Your task to perform on an android device: Show me productivity apps on the Play Store Image 0: 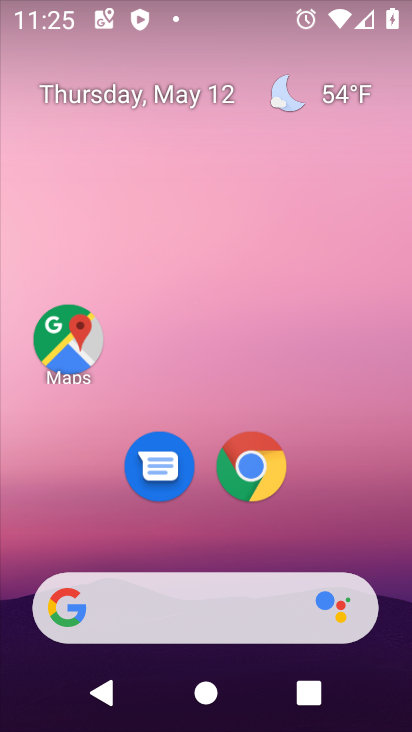
Step 0: drag from (339, 493) to (372, 209)
Your task to perform on an android device: Show me productivity apps on the Play Store Image 1: 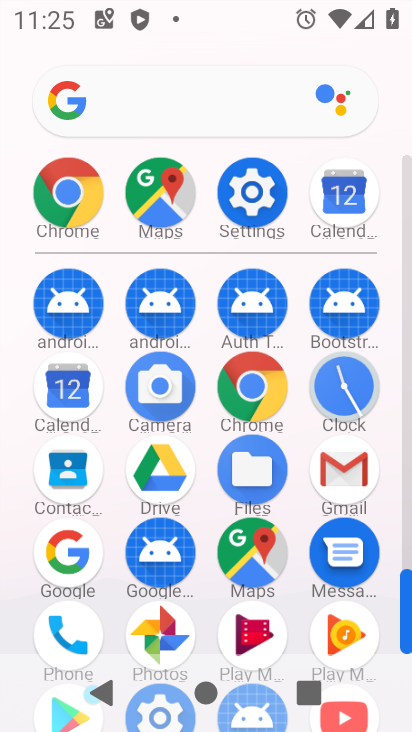
Step 1: drag from (199, 611) to (208, 249)
Your task to perform on an android device: Show me productivity apps on the Play Store Image 2: 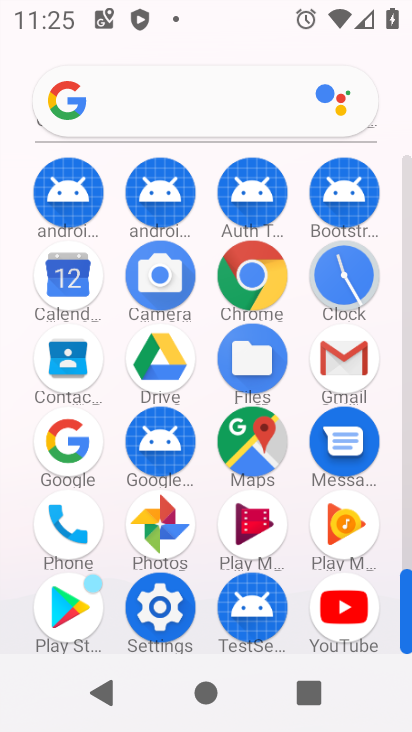
Step 2: click (72, 611)
Your task to perform on an android device: Show me productivity apps on the Play Store Image 3: 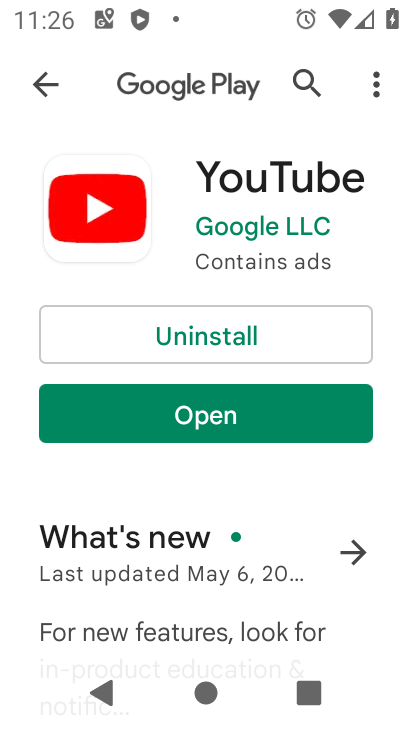
Step 3: click (39, 88)
Your task to perform on an android device: Show me productivity apps on the Play Store Image 4: 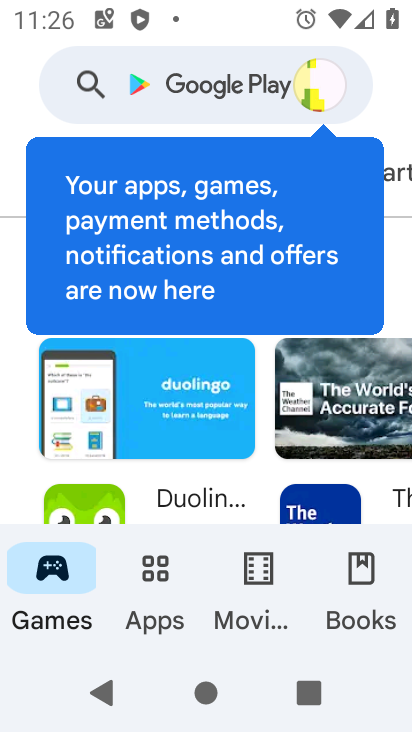
Step 4: click (160, 583)
Your task to perform on an android device: Show me productivity apps on the Play Store Image 5: 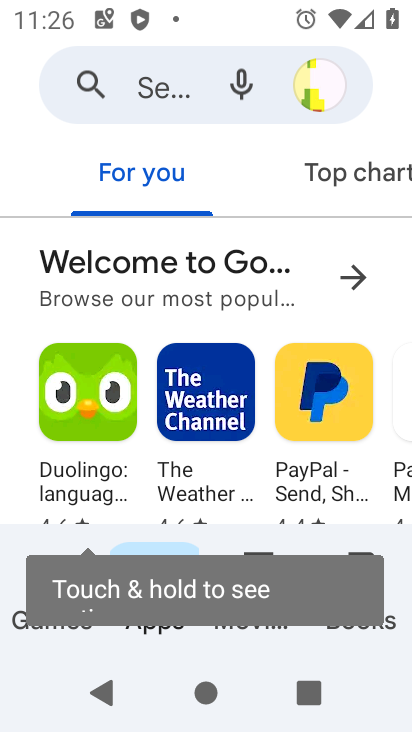
Step 5: drag from (358, 182) to (11, 186)
Your task to perform on an android device: Show me productivity apps on the Play Store Image 6: 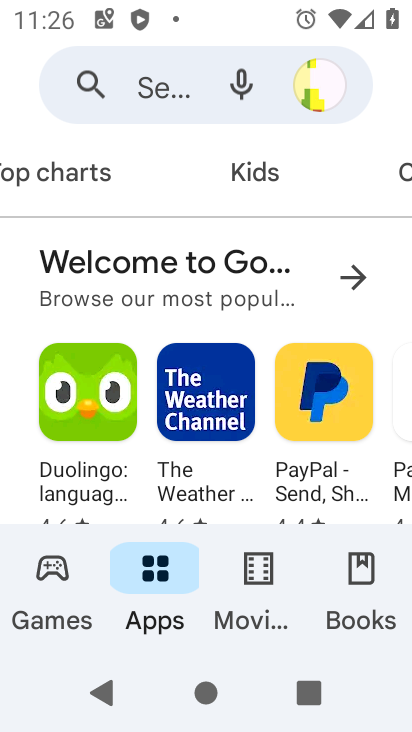
Step 6: drag from (323, 164) to (80, 193)
Your task to perform on an android device: Show me productivity apps on the Play Store Image 7: 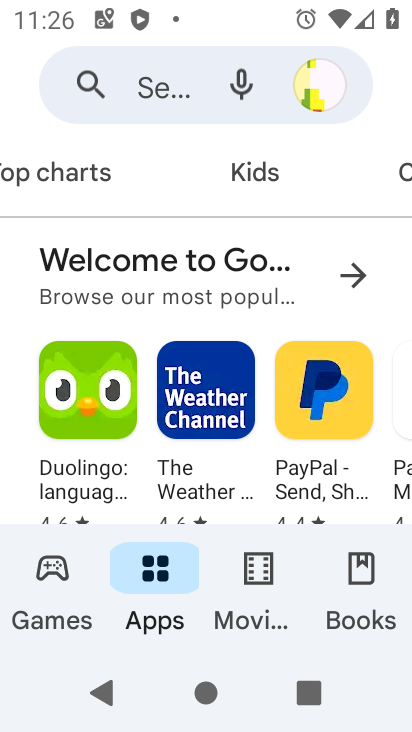
Step 7: drag from (290, 186) to (43, 208)
Your task to perform on an android device: Show me productivity apps on the Play Store Image 8: 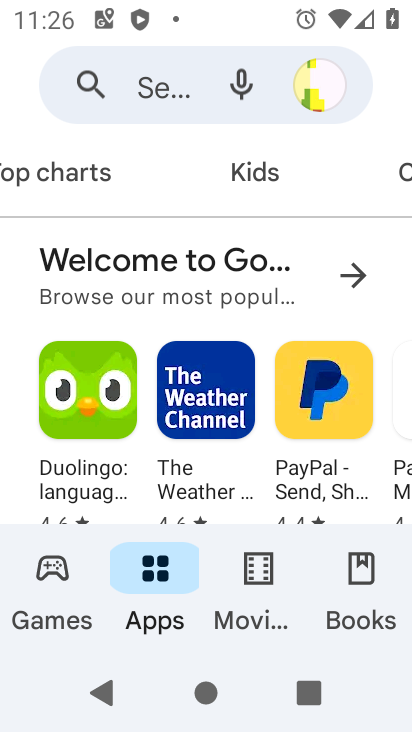
Step 8: drag from (321, 173) to (2, 156)
Your task to perform on an android device: Show me productivity apps on the Play Store Image 9: 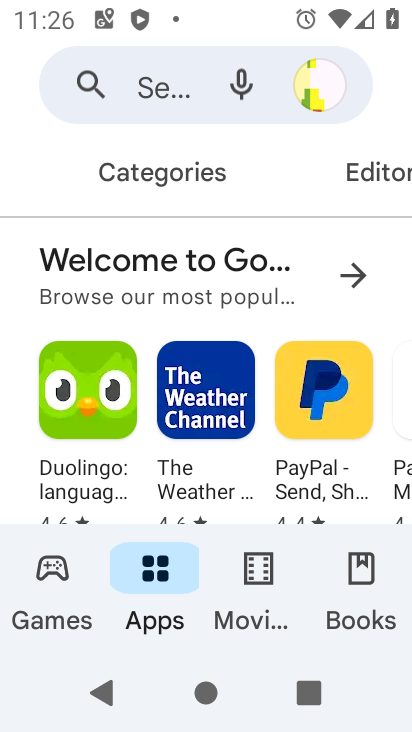
Step 9: click (121, 180)
Your task to perform on an android device: Show me productivity apps on the Play Store Image 10: 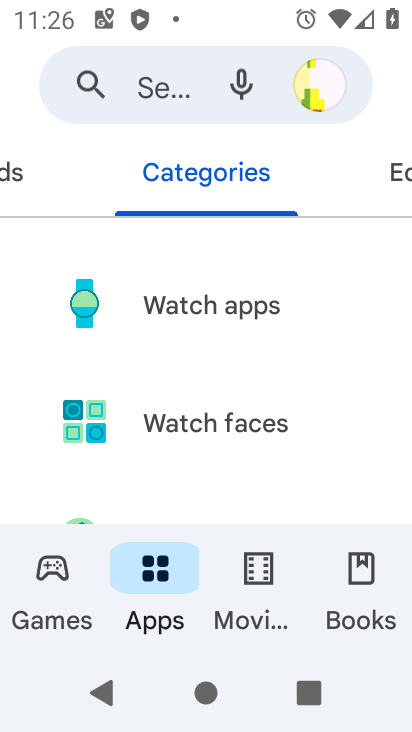
Step 10: drag from (302, 485) to (343, 340)
Your task to perform on an android device: Show me productivity apps on the Play Store Image 11: 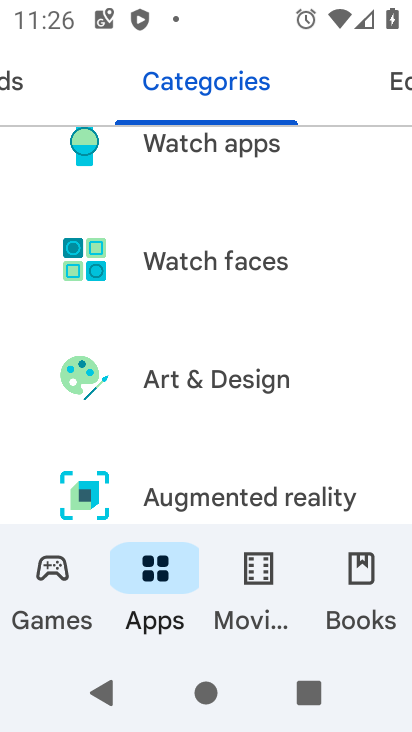
Step 11: drag from (316, 436) to (323, 277)
Your task to perform on an android device: Show me productivity apps on the Play Store Image 12: 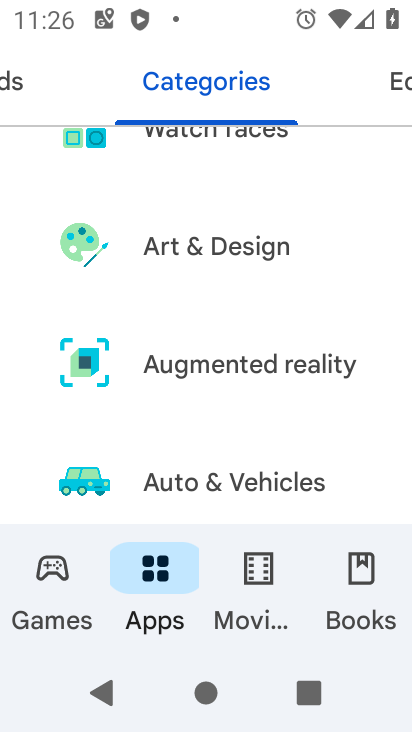
Step 12: drag from (318, 451) to (321, 264)
Your task to perform on an android device: Show me productivity apps on the Play Store Image 13: 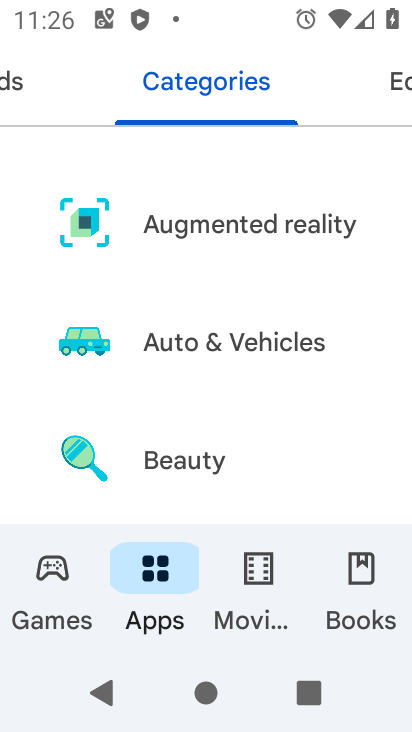
Step 13: drag from (312, 469) to (321, 183)
Your task to perform on an android device: Show me productivity apps on the Play Store Image 14: 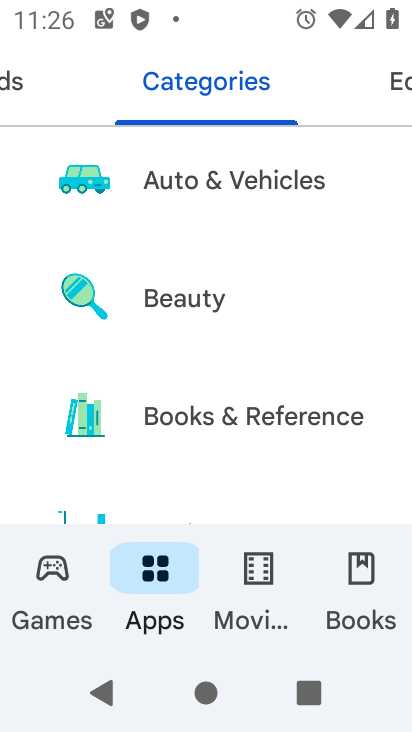
Step 14: drag from (316, 490) to (329, 234)
Your task to perform on an android device: Show me productivity apps on the Play Store Image 15: 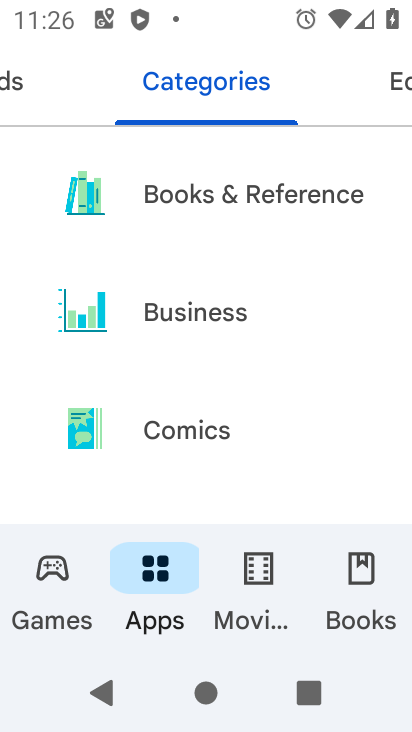
Step 15: drag from (294, 504) to (316, 283)
Your task to perform on an android device: Show me productivity apps on the Play Store Image 16: 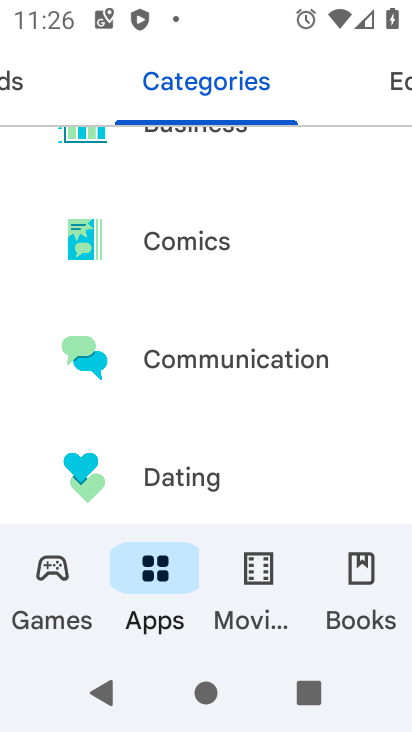
Step 16: drag from (294, 504) to (326, 202)
Your task to perform on an android device: Show me productivity apps on the Play Store Image 17: 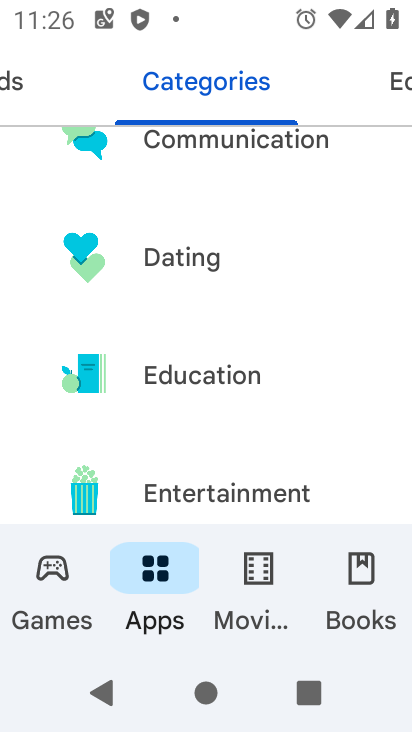
Step 17: drag from (326, 475) to (353, 188)
Your task to perform on an android device: Show me productivity apps on the Play Store Image 18: 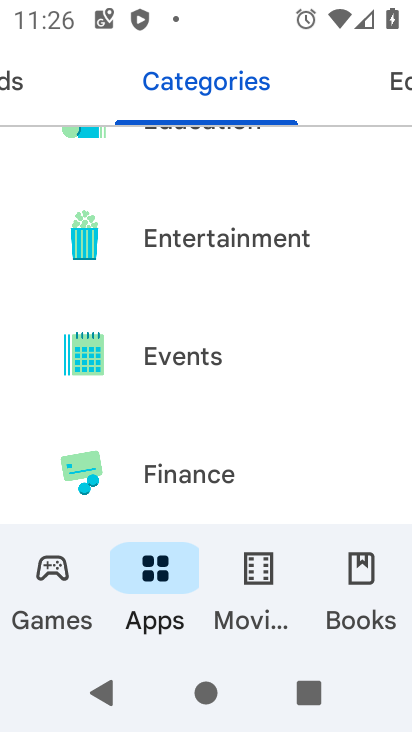
Step 18: drag from (308, 444) to (352, 175)
Your task to perform on an android device: Show me productivity apps on the Play Store Image 19: 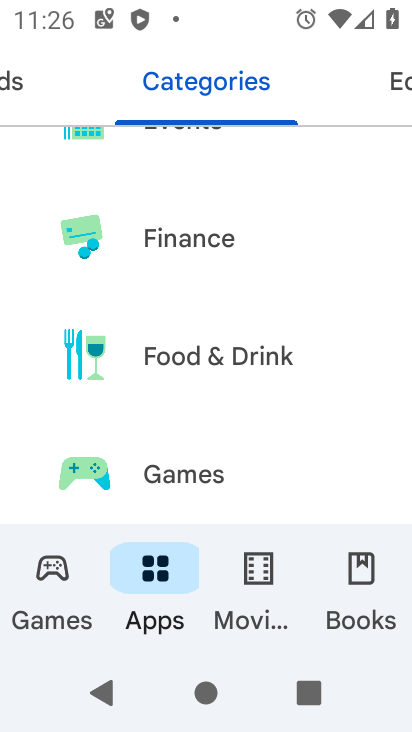
Step 19: drag from (300, 460) to (328, 186)
Your task to perform on an android device: Show me productivity apps on the Play Store Image 20: 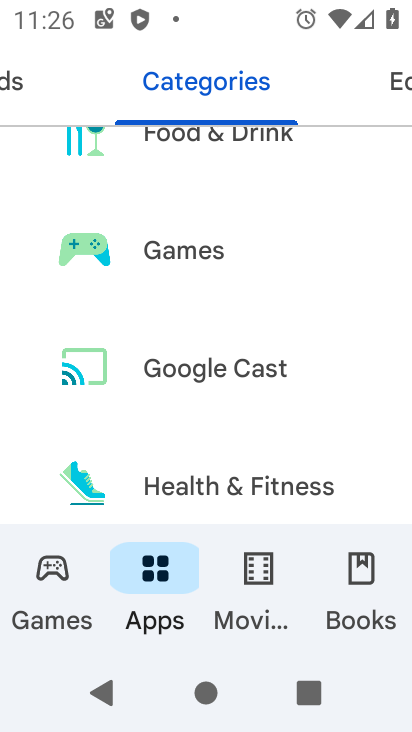
Step 20: drag from (297, 462) to (318, 196)
Your task to perform on an android device: Show me productivity apps on the Play Store Image 21: 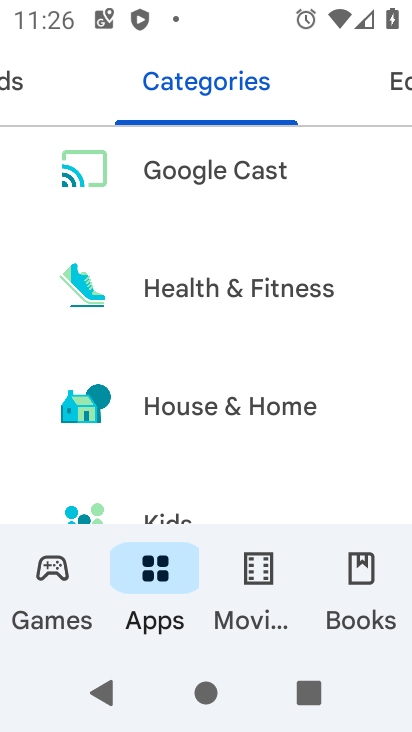
Step 21: drag from (313, 474) to (332, 160)
Your task to perform on an android device: Show me productivity apps on the Play Store Image 22: 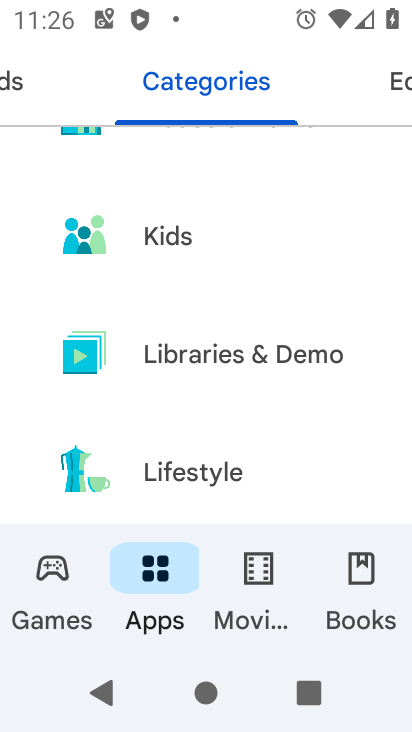
Step 22: drag from (296, 479) to (329, 222)
Your task to perform on an android device: Show me productivity apps on the Play Store Image 23: 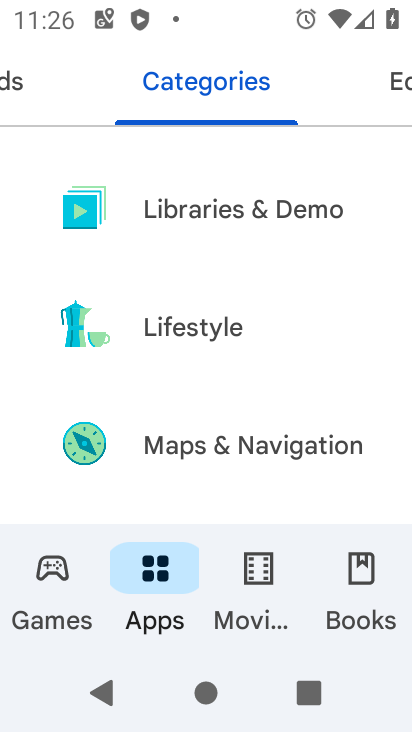
Step 23: drag from (306, 497) to (355, 180)
Your task to perform on an android device: Show me productivity apps on the Play Store Image 24: 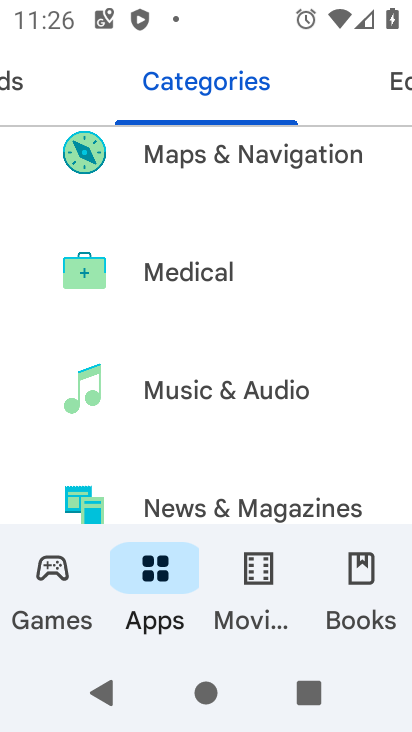
Step 24: drag from (291, 464) to (332, 254)
Your task to perform on an android device: Show me productivity apps on the Play Store Image 25: 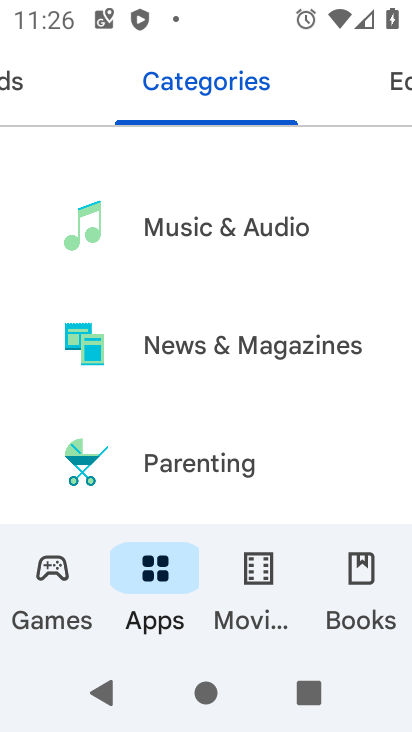
Step 25: drag from (307, 456) to (350, 187)
Your task to perform on an android device: Show me productivity apps on the Play Store Image 26: 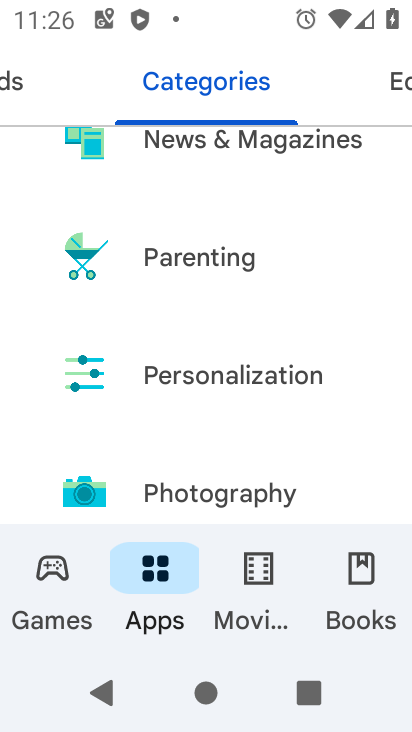
Step 26: drag from (311, 476) to (339, 223)
Your task to perform on an android device: Show me productivity apps on the Play Store Image 27: 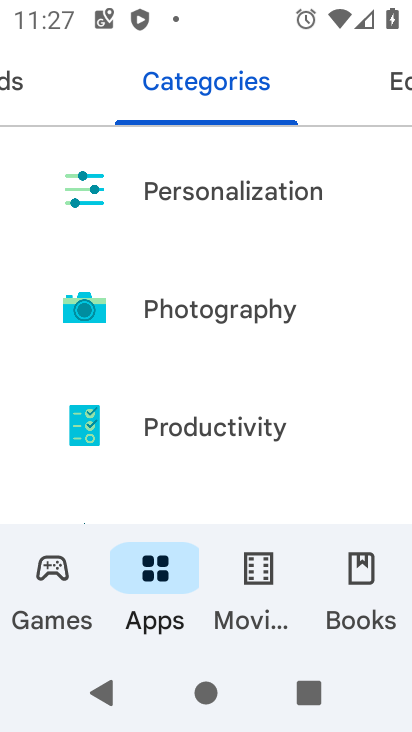
Step 27: click (299, 422)
Your task to perform on an android device: Show me productivity apps on the Play Store Image 28: 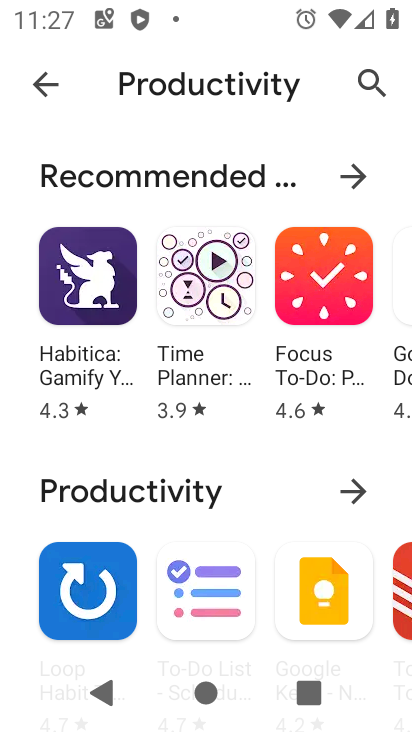
Step 28: task complete